Your task to perform on an android device: Open Youtube and go to "Your channel" Image 0: 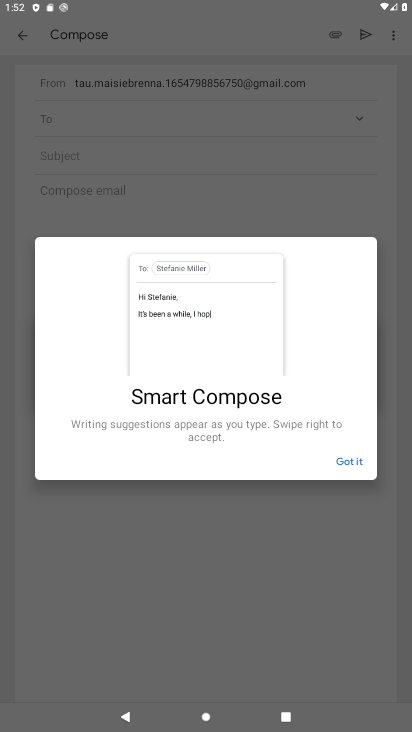
Step 0: press home button
Your task to perform on an android device: Open Youtube and go to "Your channel" Image 1: 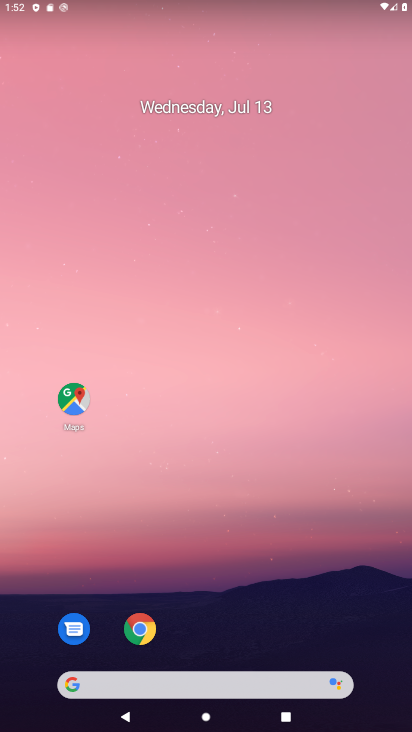
Step 1: drag from (257, 637) to (285, 103)
Your task to perform on an android device: Open Youtube and go to "Your channel" Image 2: 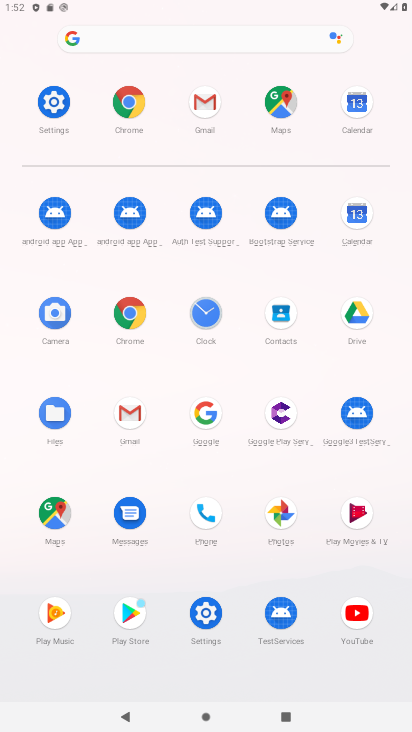
Step 2: click (370, 626)
Your task to perform on an android device: Open Youtube and go to "Your channel" Image 3: 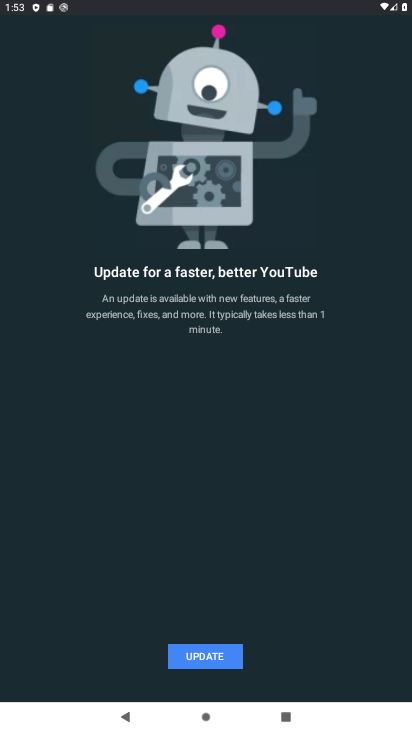
Step 3: click (219, 649)
Your task to perform on an android device: Open Youtube and go to "Your channel" Image 4: 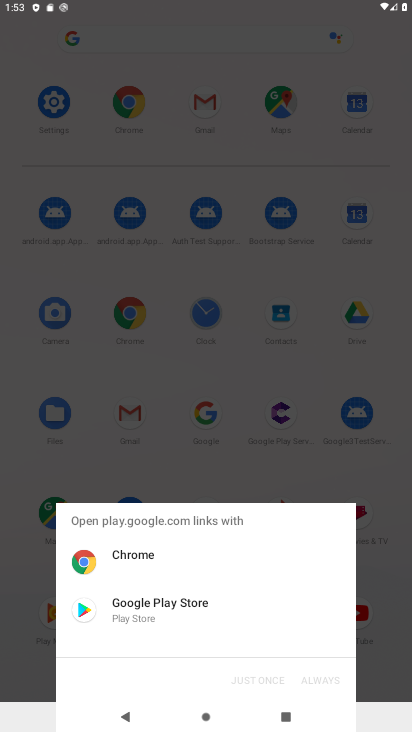
Step 4: click (205, 627)
Your task to perform on an android device: Open Youtube and go to "Your channel" Image 5: 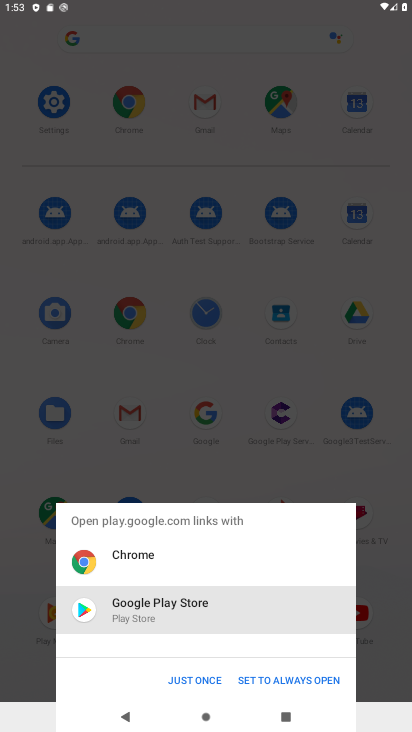
Step 5: click (182, 689)
Your task to perform on an android device: Open Youtube and go to "Your channel" Image 6: 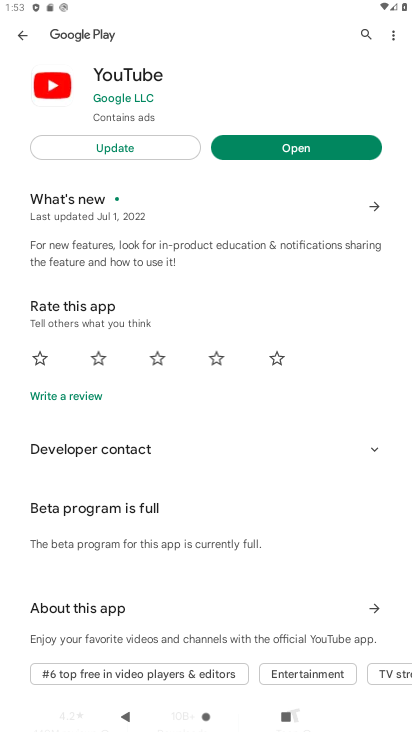
Step 6: click (145, 156)
Your task to perform on an android device: Open Youtube and go to "Your channel" Image 7: 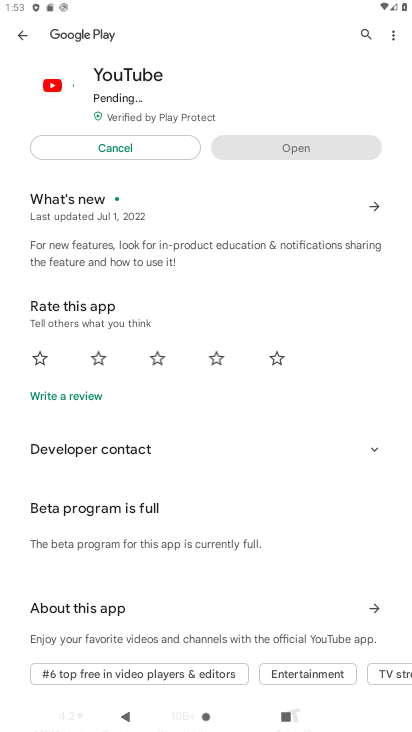
Step 7: task complete